Your task to perform on an android device: check the backup settings in the google photos Image 0: 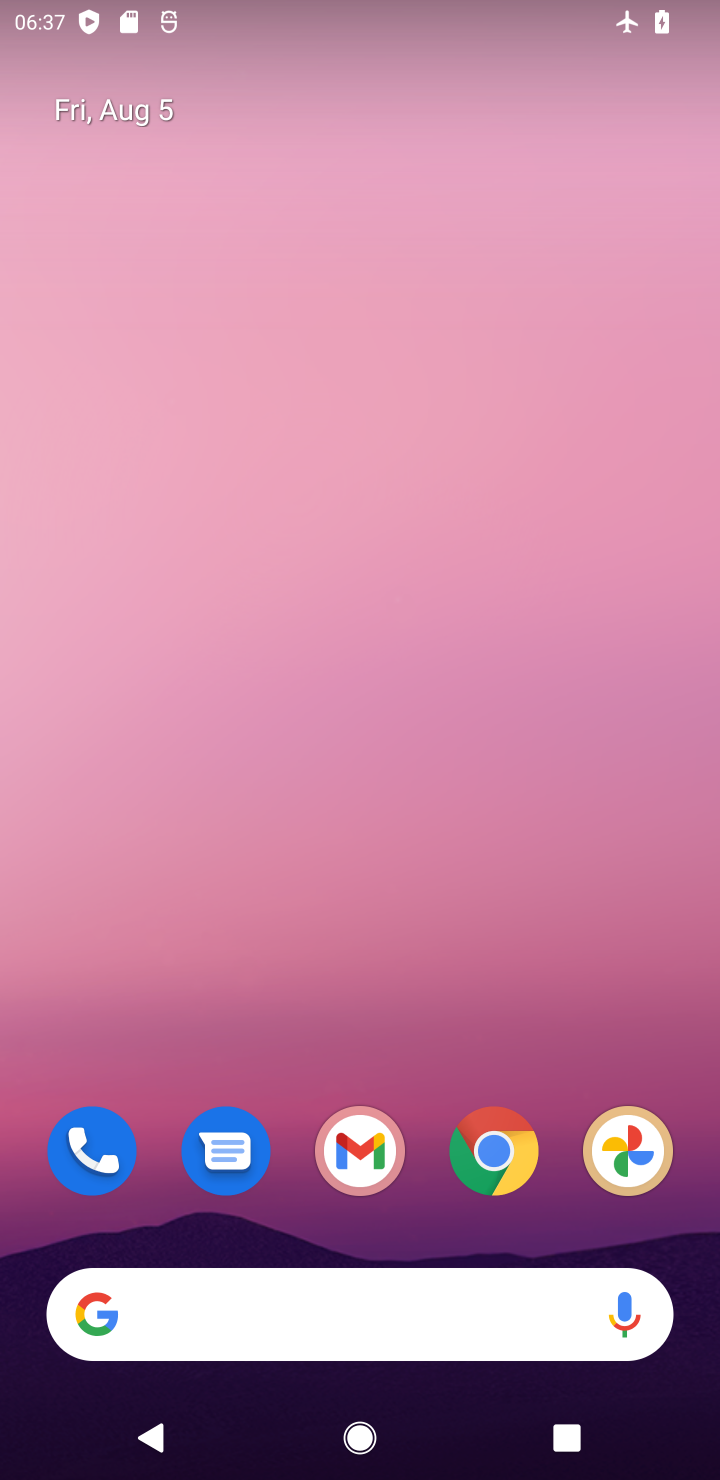
Step 0: drag from (450, 1223) to (277, 165)
Your task to perform on an android device: check the backup settings in the google photos Image 1: 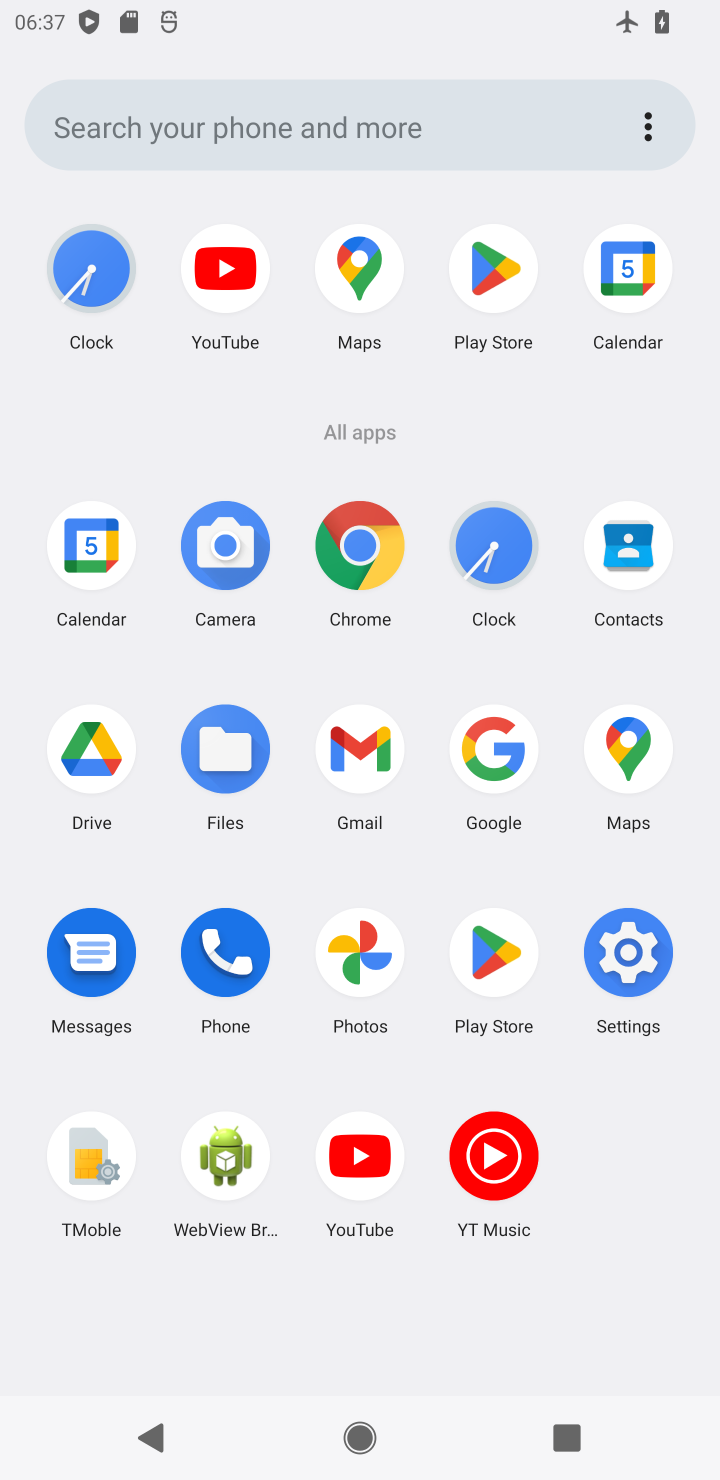
Step 1: click (356, 974)
Your task to perform on an android device: check the backup settings in the google photos Image 2: 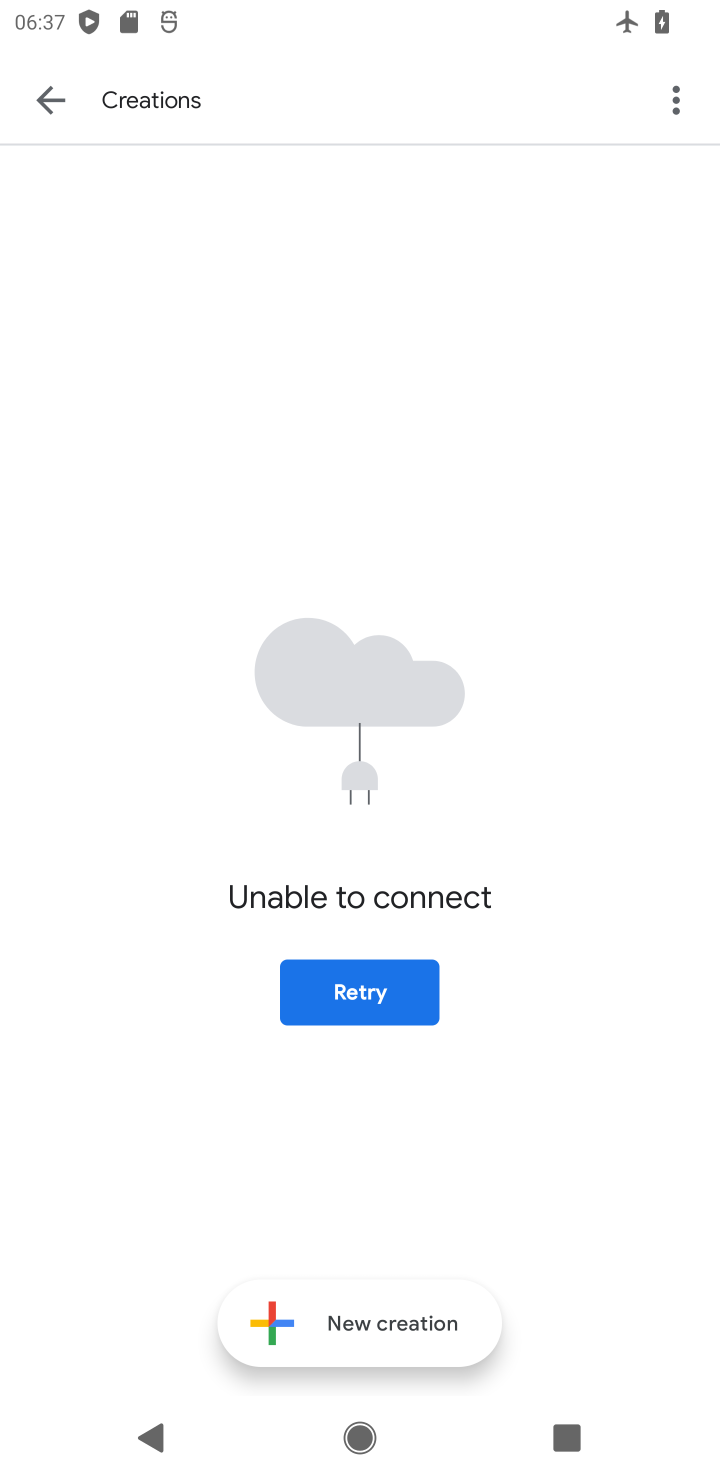
Step 2: drag from (393, 980) to (459, 980)
Your task to perform on an android device: check the backup settings in the google photos Image 3: 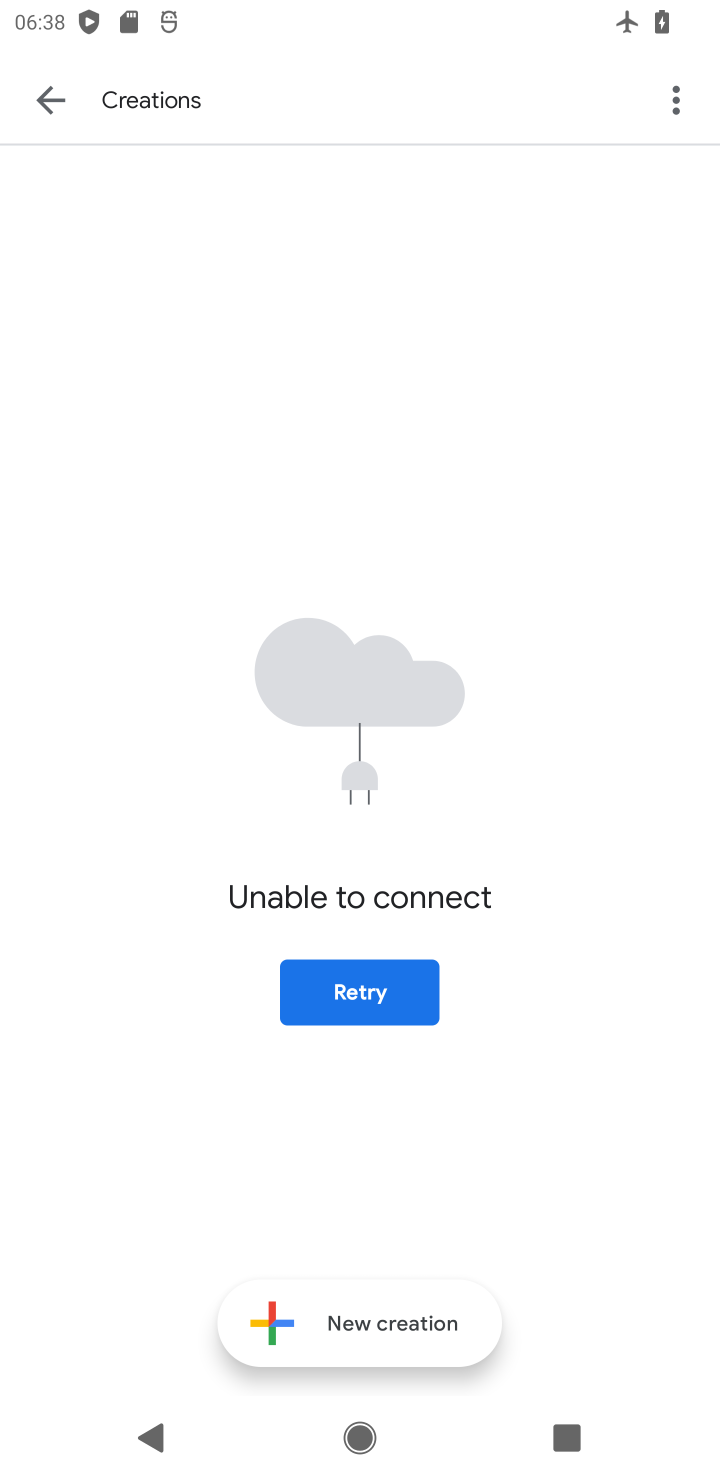
Step 3: click (73, 111)
Your task to perform on an android device: check the backup settings in the google photos Image 4: 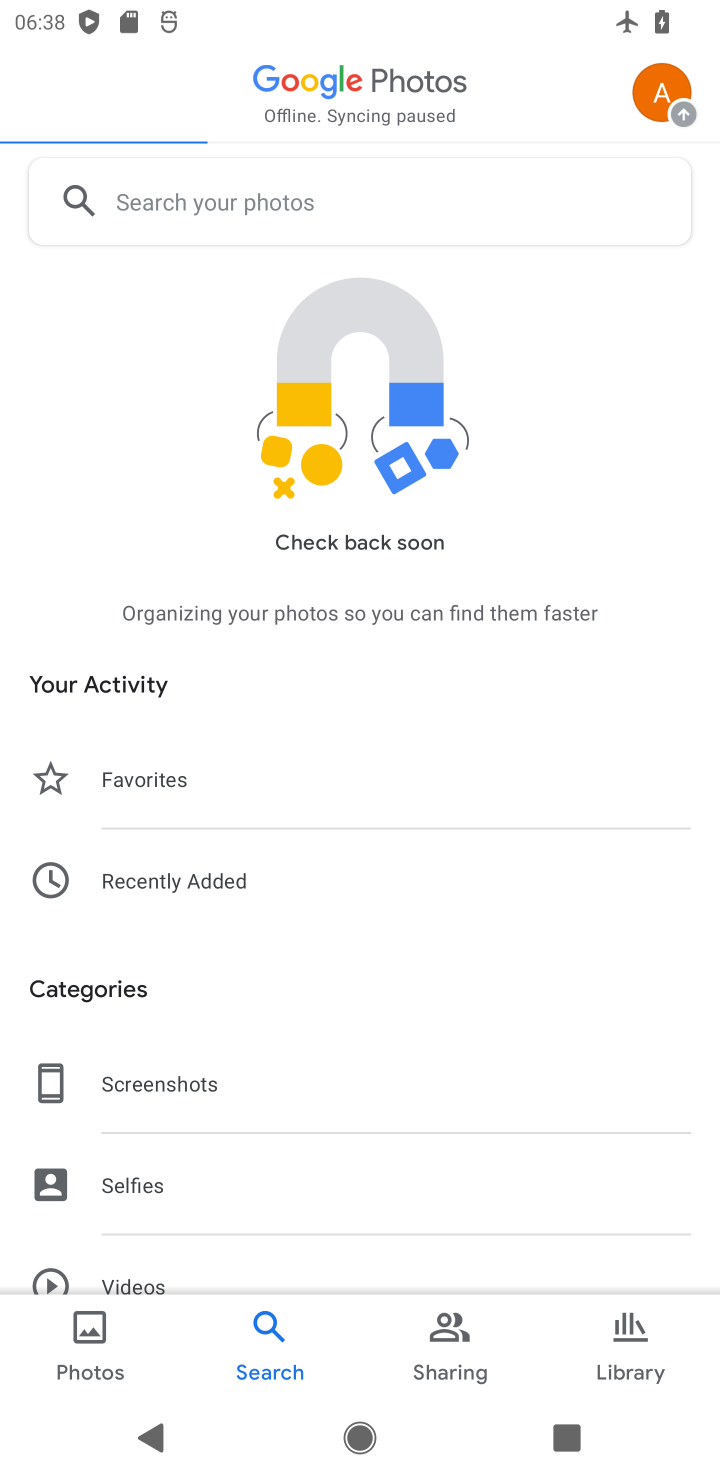
Step 4: click (134, 1347)
Your task to perform on an android device: check the backup settings in the google photos Image 5: 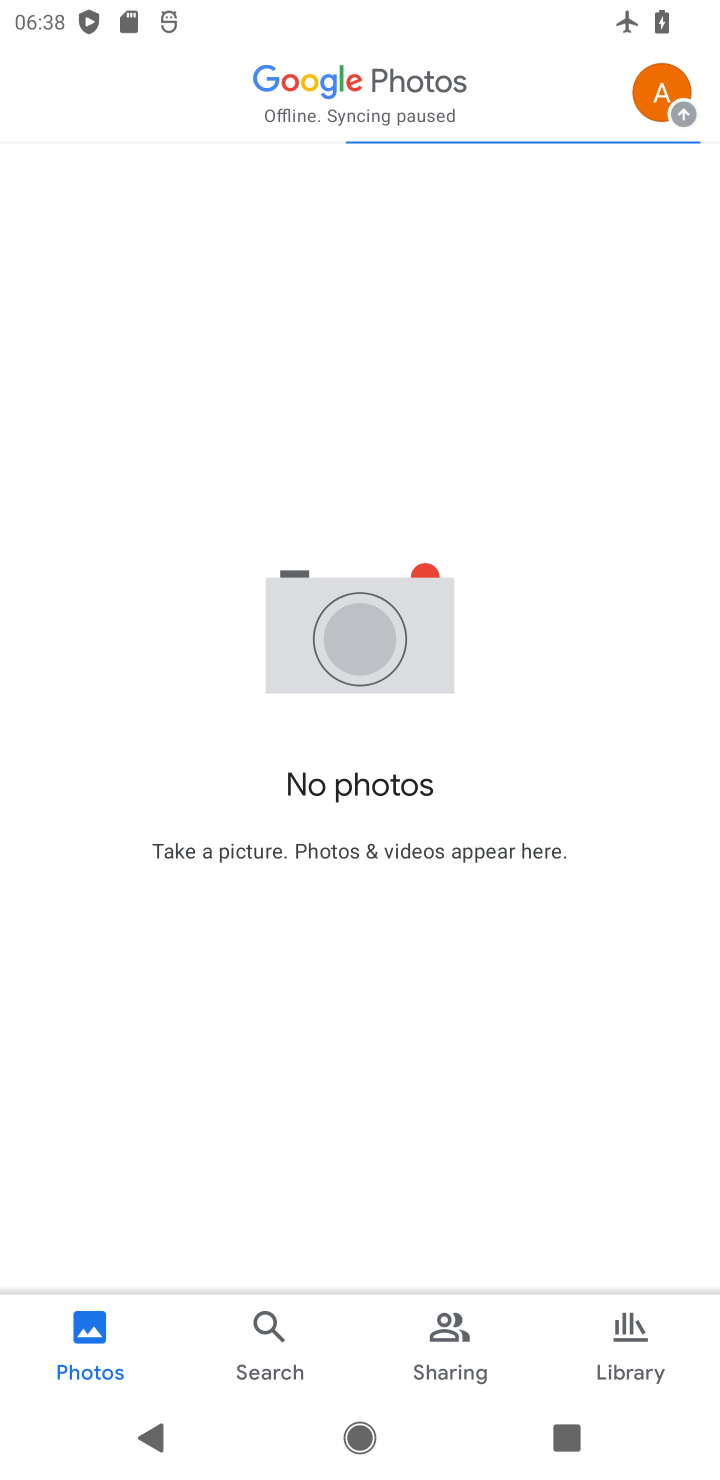
Step 5: click (664, 55)
Your task to perform on an android device: check the backup settings in the google photos Image 6: 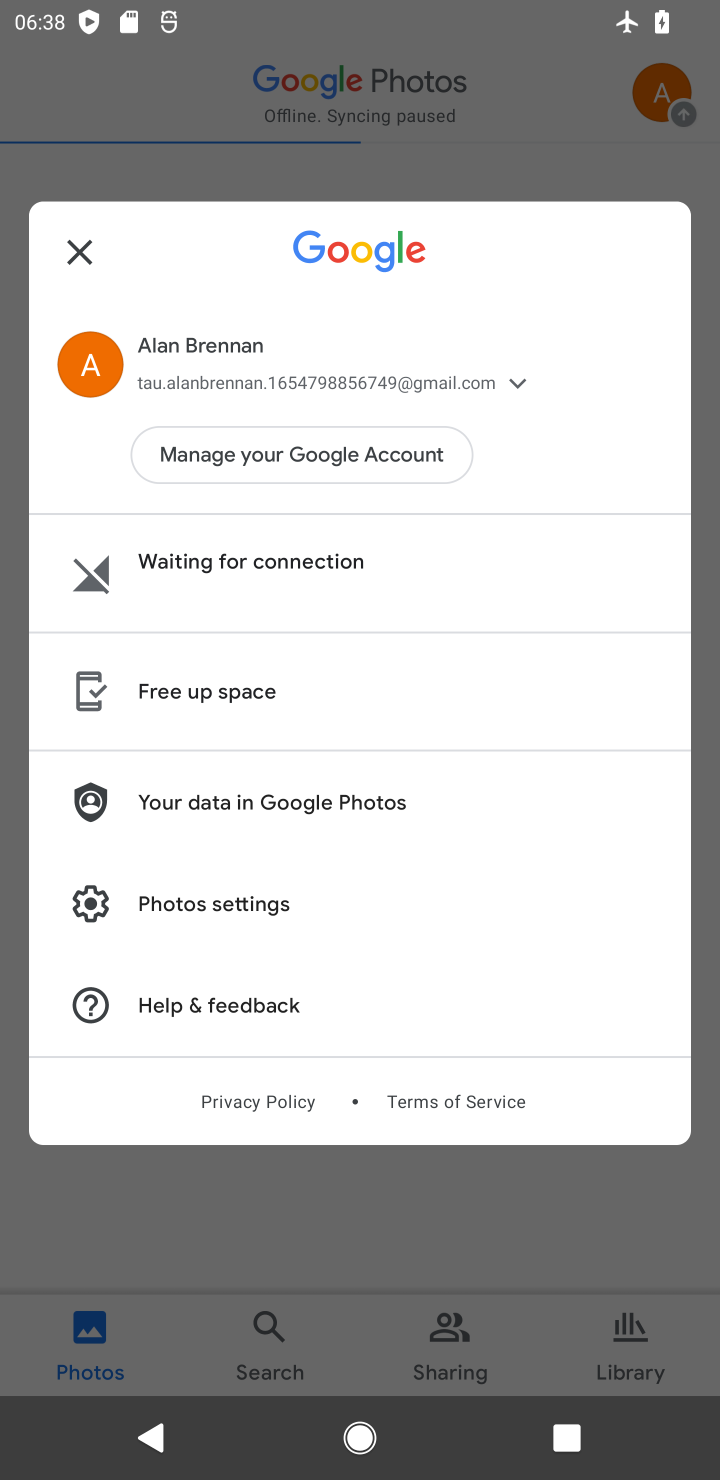
Step 6: click (192, 880)
Your task to perform on an android device: check the backup settings in the google photos Image 7: 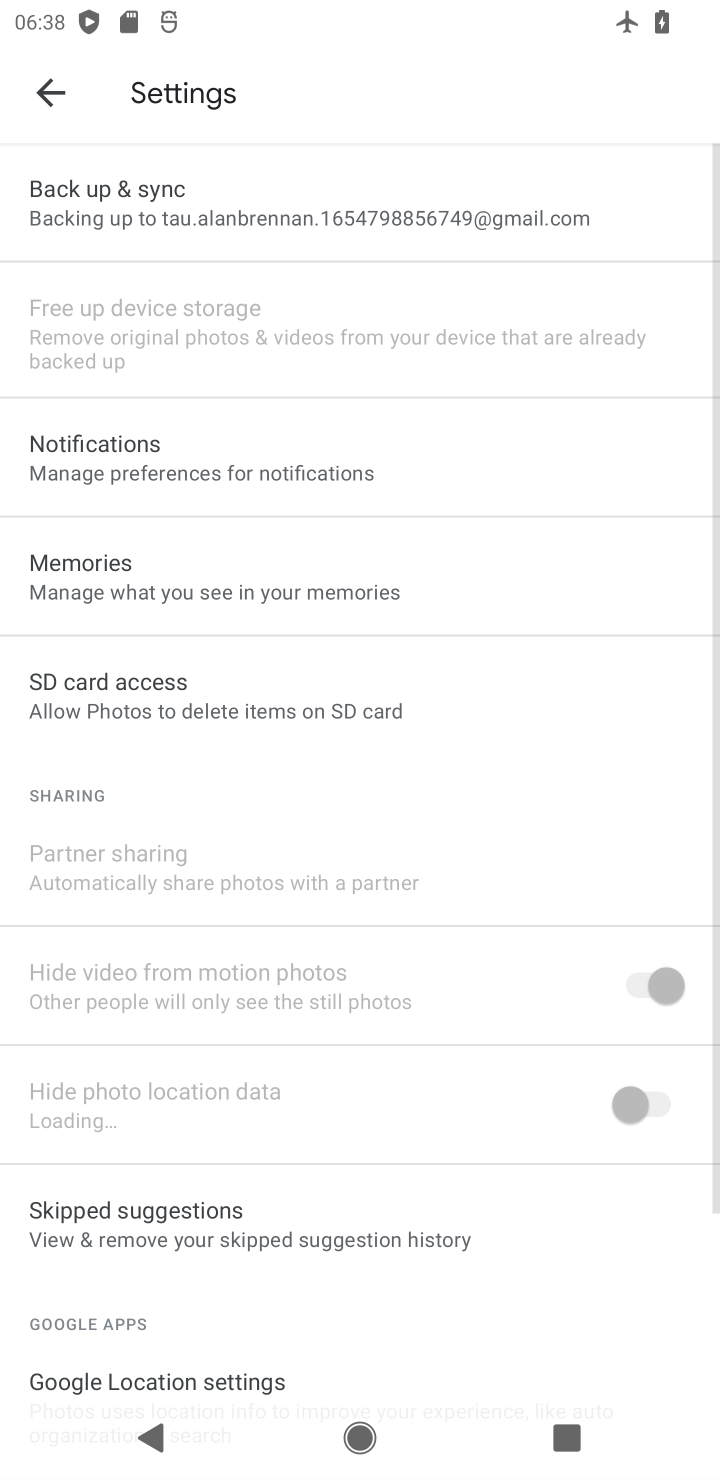
Step 7: click (221, 228)
Your task to perform on an android device: check the backup settings in the google photos Image 8: 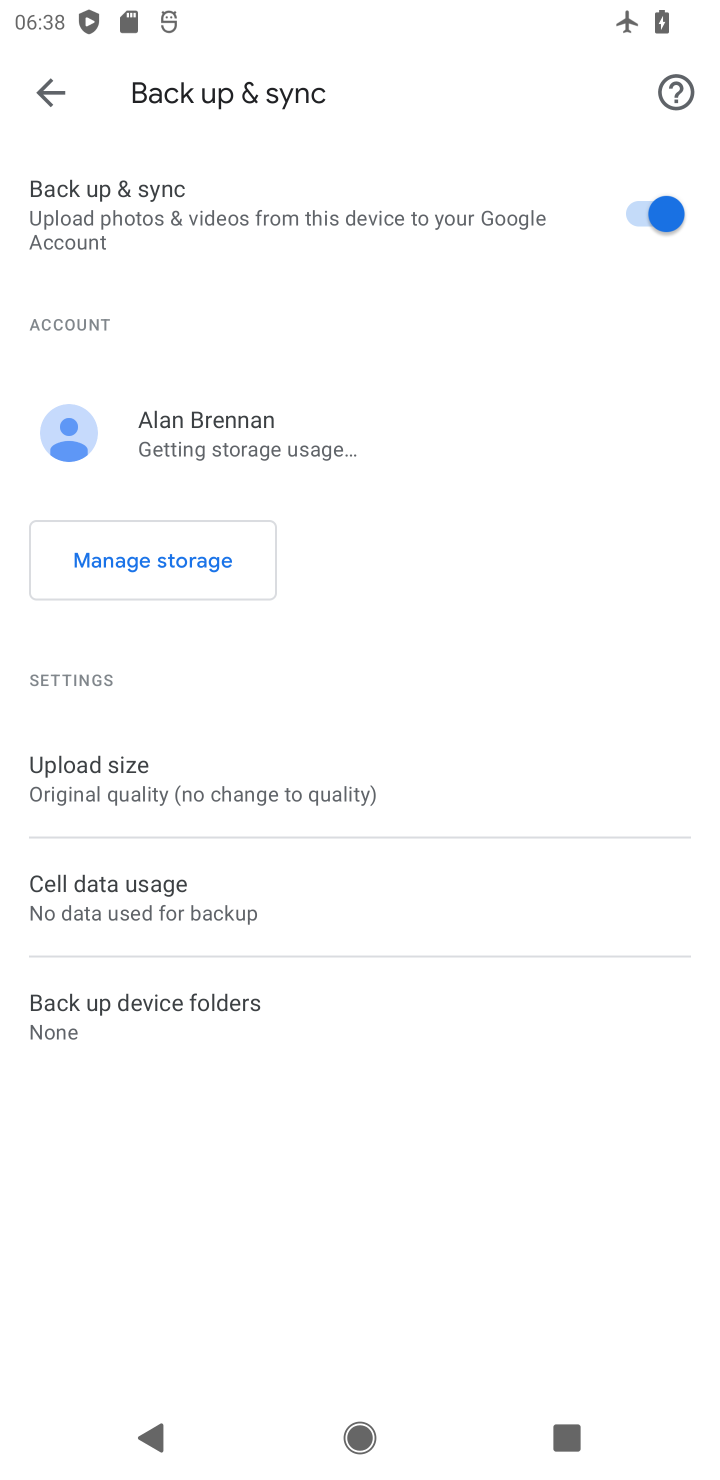
Step 8: task complete